Your task to perform on an android device: turn pop-ups on in chrome Image 0: 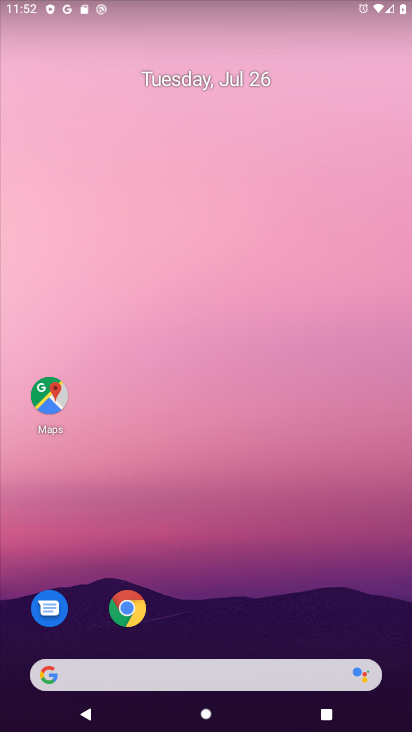
Step 0: click (126, 609)
Your task to perform on an android device: turn pop-ups on in chrome Image 1: 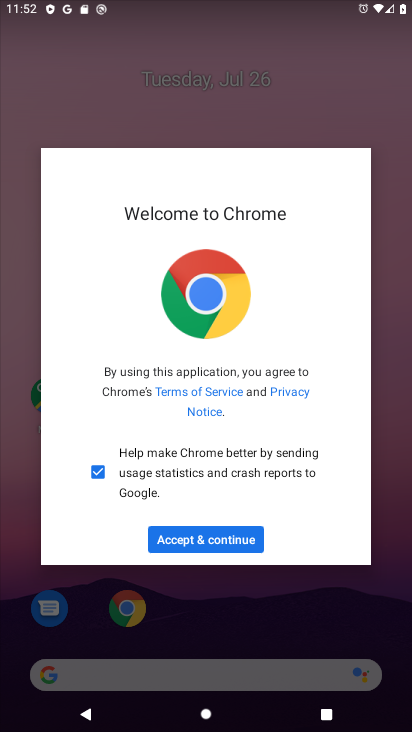
Step 1: click (174, 543)
Your task to perform on an android device: turn pop-ups on in chrome Image 2: 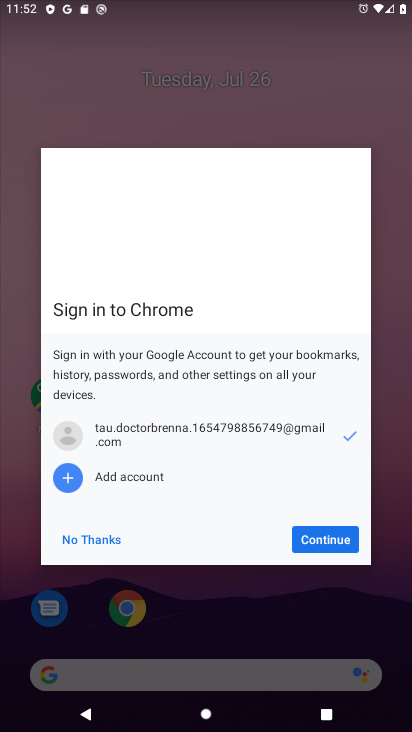
Step 2: click (315, 537)
Your task to perform on an android device: turn pop-ups on in chrome Image 3: 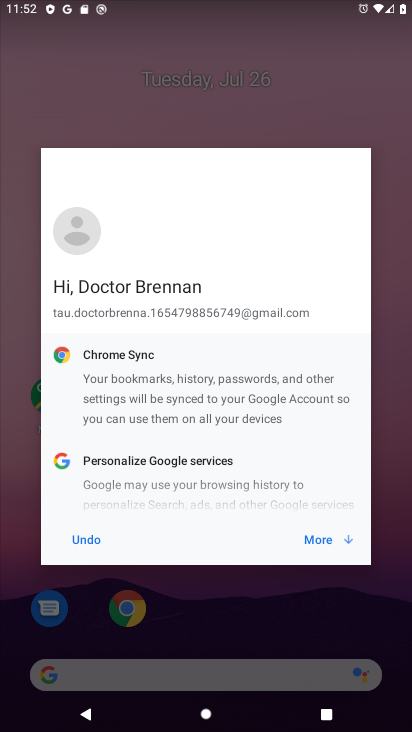
Step 3: click (315, 537)
Your task to perform on an android device: turn pop-ups on in chrome Image 4: 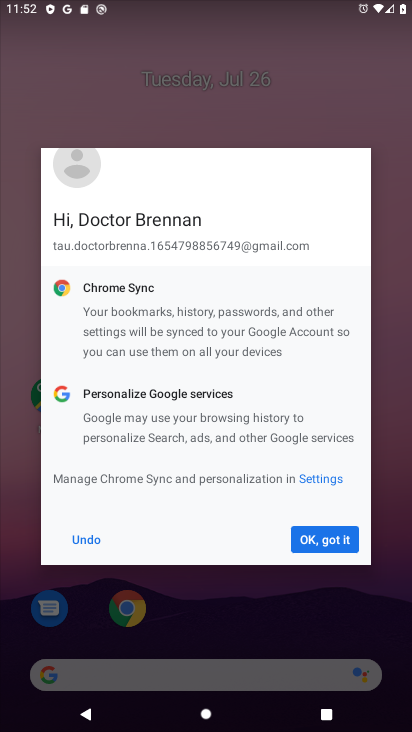
Step 4: click (315, 537)
Your task to perform on an android device: turn pop-ups on in chrome Image 5: 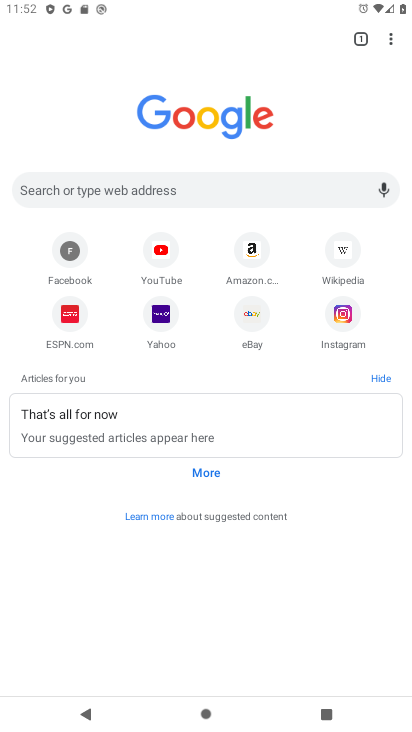
Step 5: click (390, 37)
Your task to perform on an android device: turn pop-ups on in chrome Image 6: 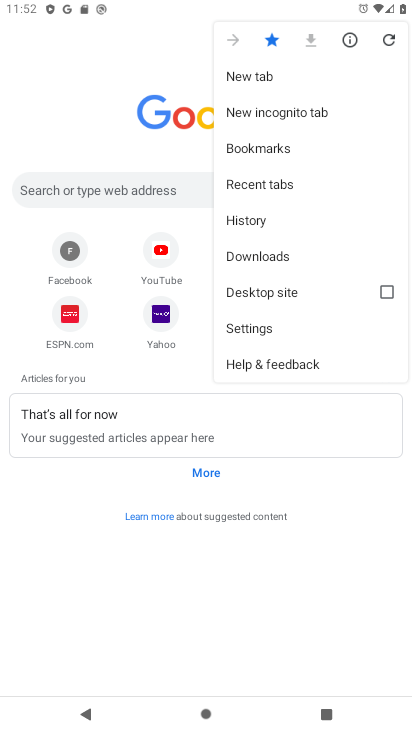
Step 6: click (253, 327)
Your task to perform on an android device: turn pop-ups on in chrome Image 7: 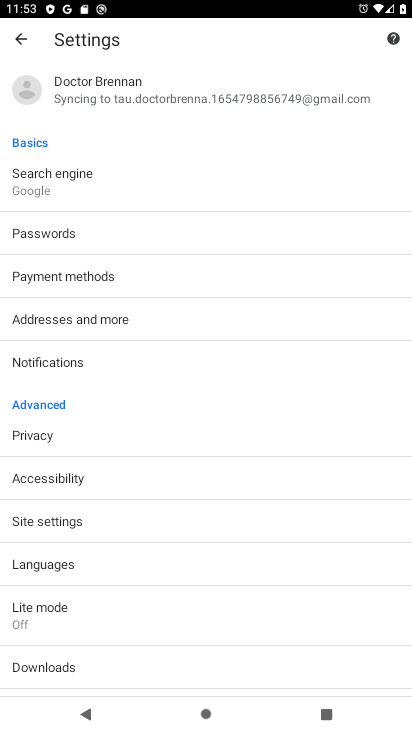
Step 7: click (65, 516)
Your task to perform on an android device: turn pop-ups on in chrome Image 8: 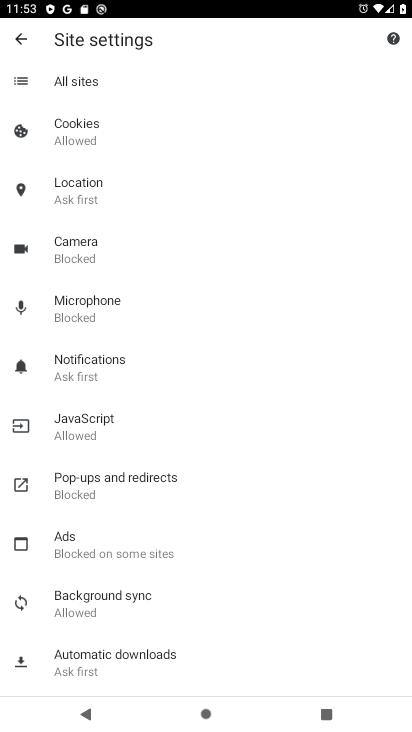
Step 8: click (125, 479)
Your task to perform on an android device: turn pop-ups on in chrome Image 9: 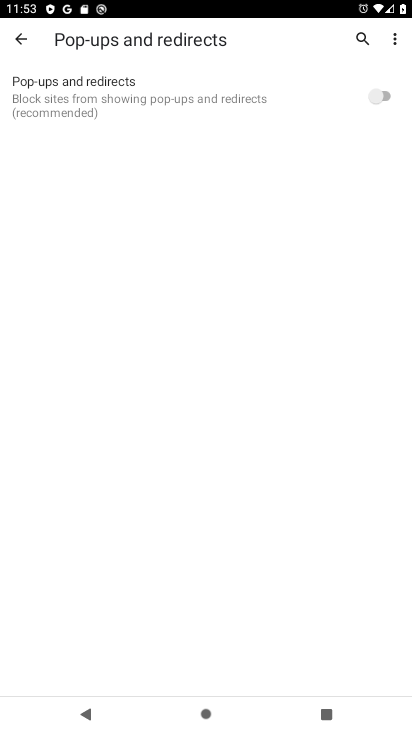
Step 9: click (381, 96)
Your task to perform on an android device: turn pop-ups on in chrome Image 10: 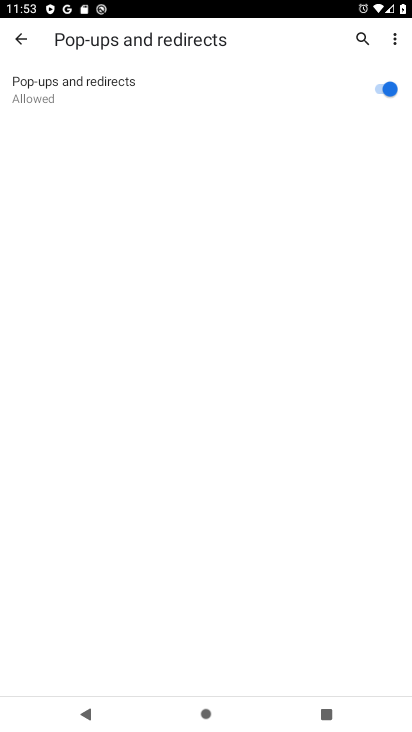
Step 10: task complete